Your task to perform on an android device: Go to Yahoo.com Image 0: 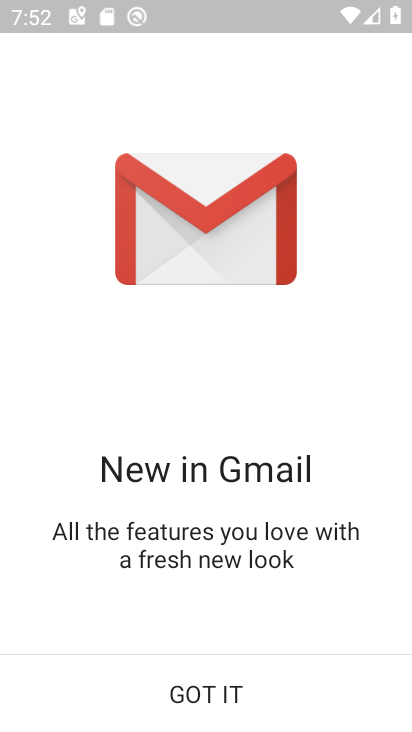
Step 0: press home button
Your task to perform on an android device: Go to Yahoo.com Image 1: 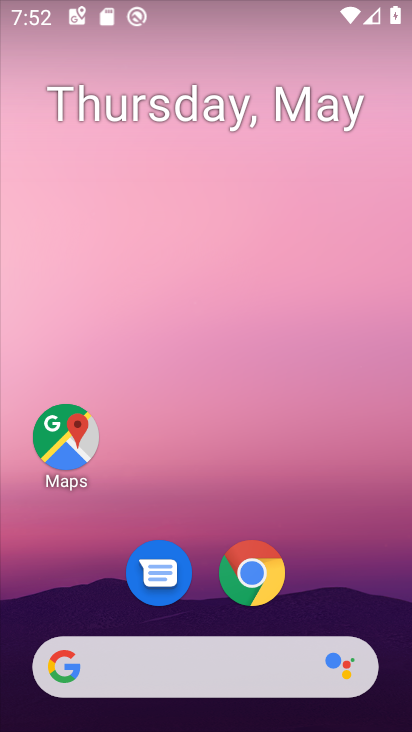
Step 1: click (279, 590)
Your task to perform on an android device: Go to Yahoo.com Image 2: 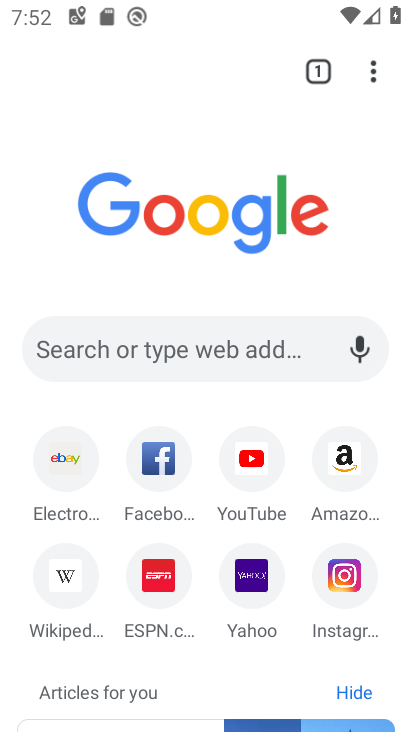
Step 2: click (248, 593)
Your task to perform on an android device: Go to Yahoo.com Image 3: 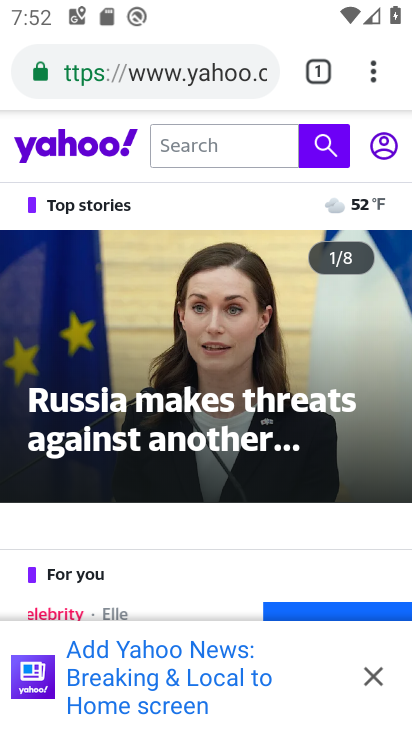
Step 3: task complete